Your task to perform on an android device: Go to Maps Image 0: 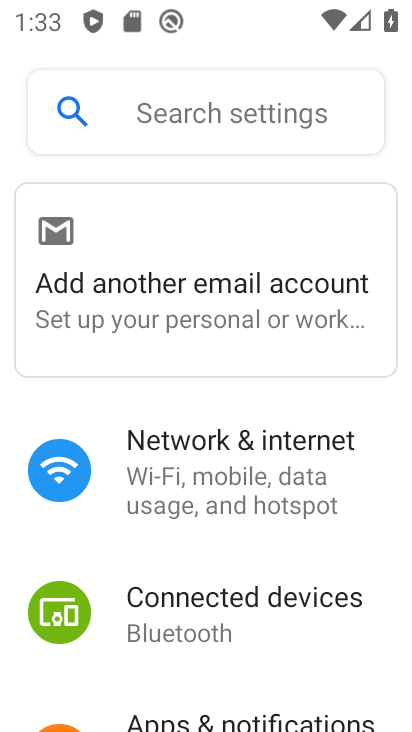
Step 0: press home button
Your task to perform on an android device: Go to Maps Image 1: 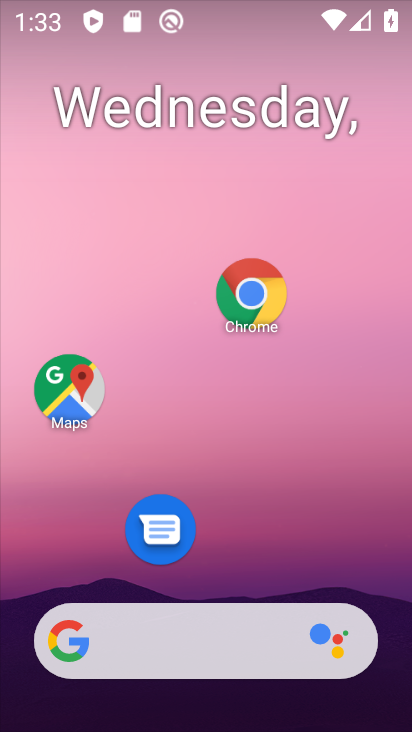
Step 1: drag from (277, 645) to (340, 184)
Your task to perform on an android device: Go to Maps Image 2: 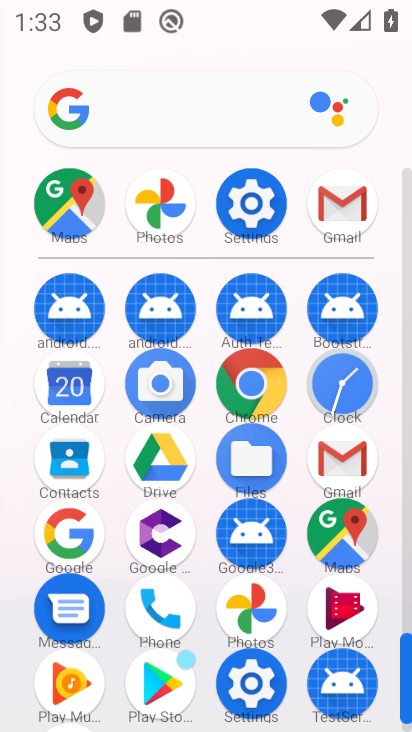
Step 2: click (362, 545)
Your task to perform on an android device: Go to Maps Image 3: 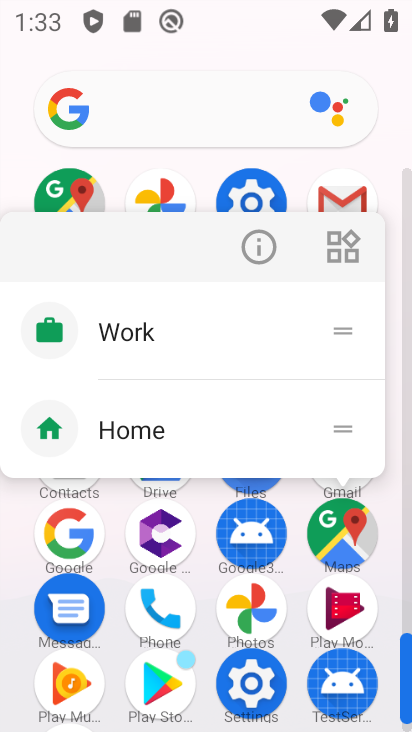
Step 3: click (351, 539)
Your task to perform on an android device: Go to Maps Image 4: 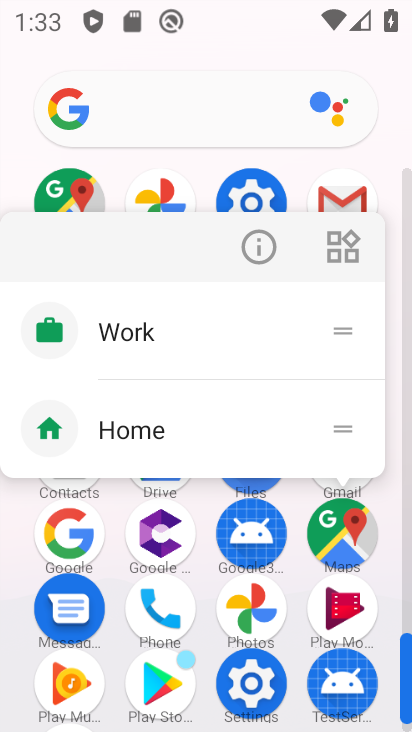
Step 4: click (349, 541)
Your task to perform on an android device: Go to Maps Image 5: 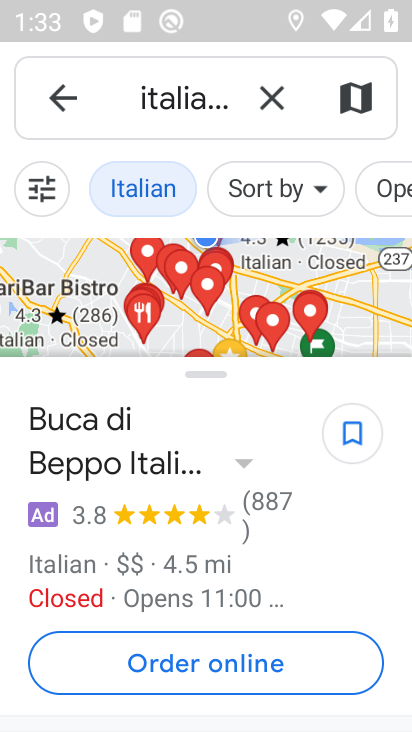
Step 5: click (267, 103)
Your task to perform on an android device: Go to Maps Image 6: 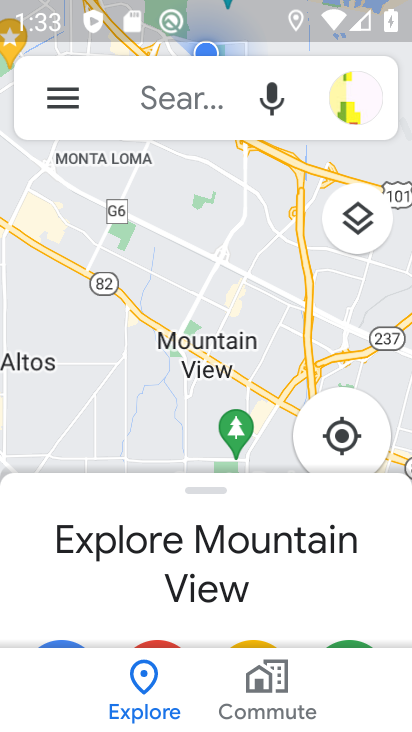
Step 6: task complete